Your task to perform on an android device: check the backup settings in the google photos Image 0: 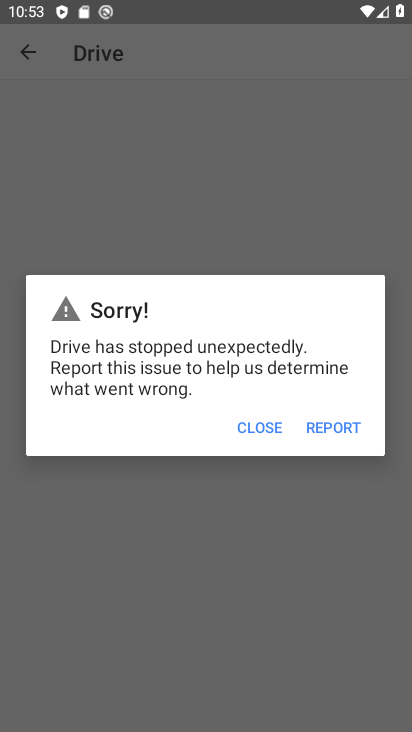
Step 0: press home button
Your task to perform on an android device: check the backup settings in the google photos Image 1: 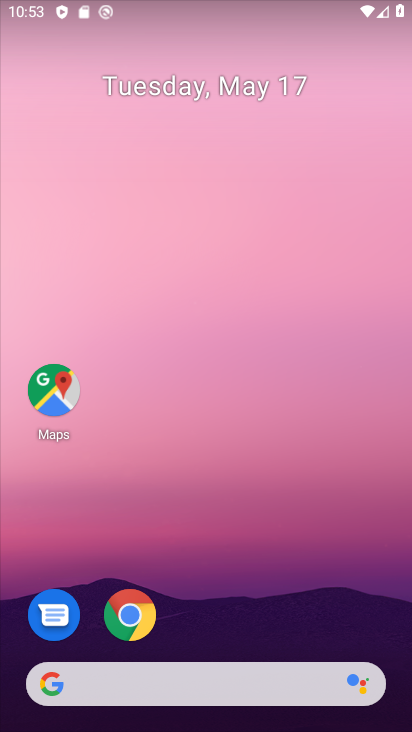
Step 1: drag from (190, 629) to (247, 317)
Your task to perform on an android device: check the backup settings in the google photos Image 2: 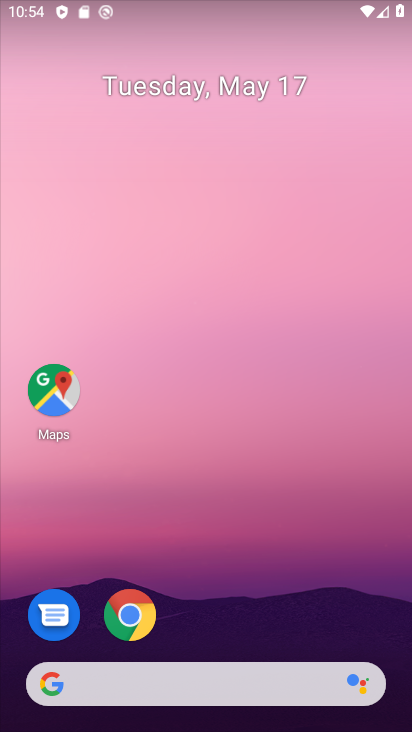
Step 2: drag from (198, 628) to (261, 272)
Your task to perform on an android device: check the backup settings in the google photos Image 3: 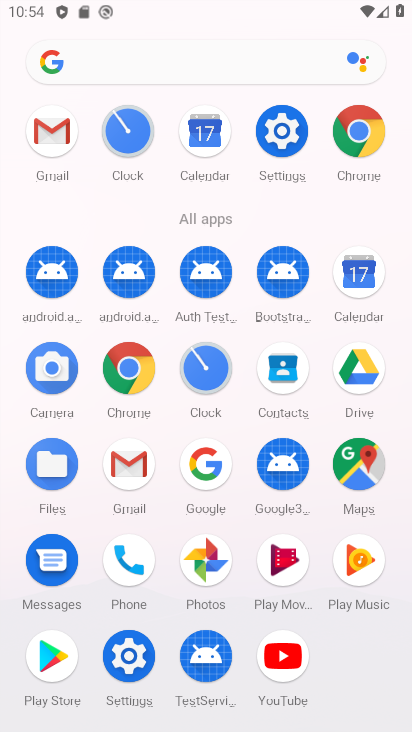
Step 3: click (200, 553)
Your task to perform on an android device: check the backup settings in the google photos Image 4: 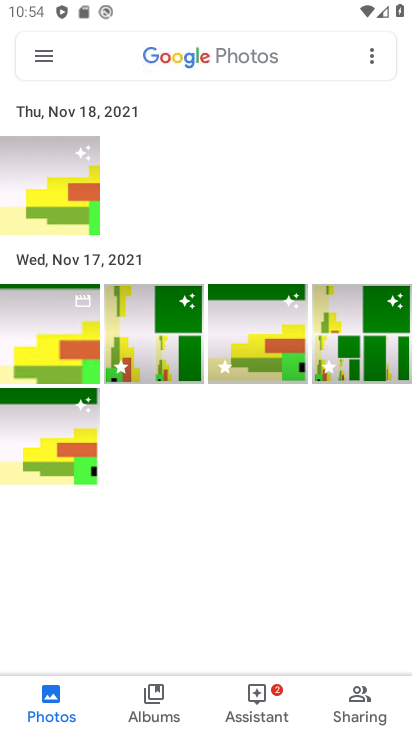
Step 4: click (51, 58)
Your task to perform on an android device: check the backup settings in the google photos Image 5: 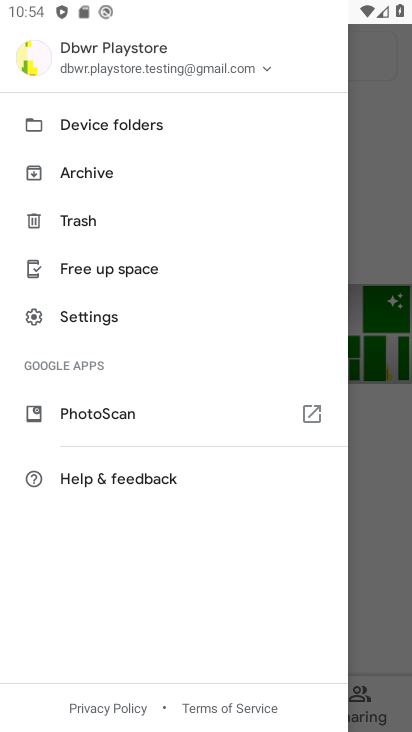
Step 5: click (113, 317)
Your task to perform on an android device: check the backup settings in the google photos Image 6: 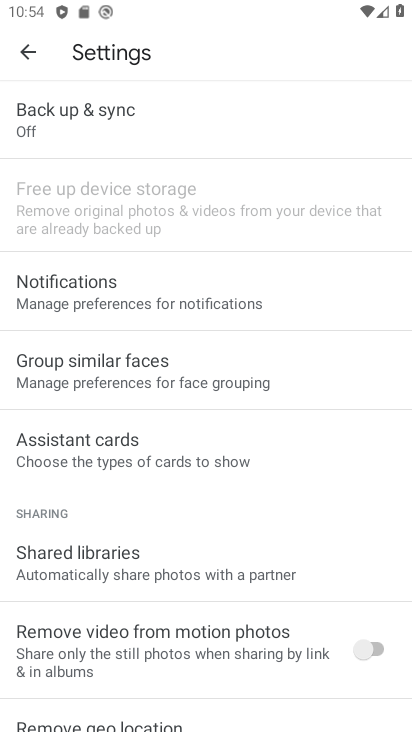
Step 6: click (148, 114)
Your task to perform on an android device: check the backup settings in the google photos Image 7: 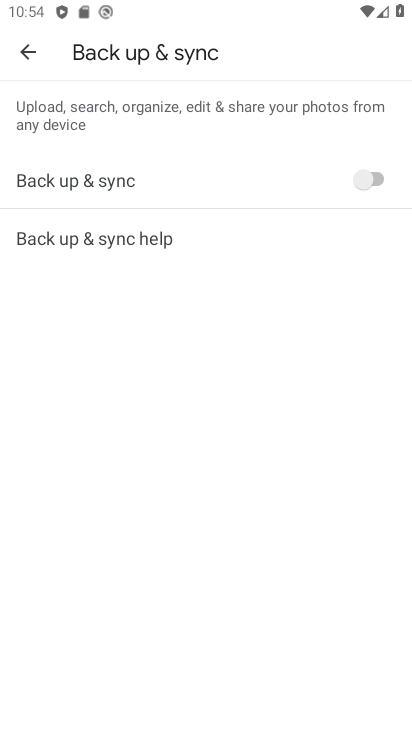
Step 7: task complete